Your task to perform on an android device: Open Wikipedia Image 0: 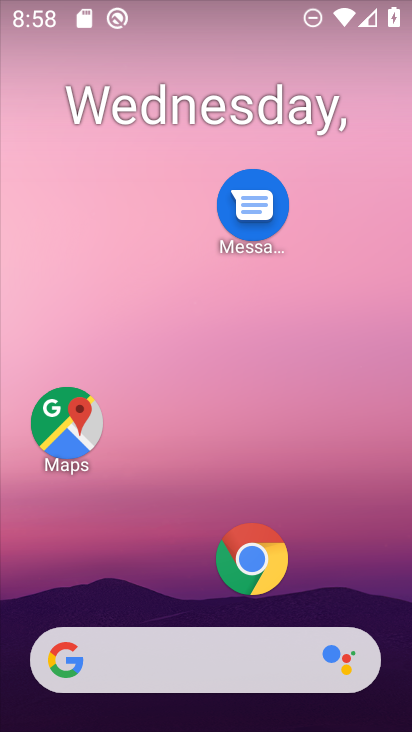
Step 0: drag from (151, 563) to (151, 41)
Your task to perform on an android device: Open Wikipedia Image 1: 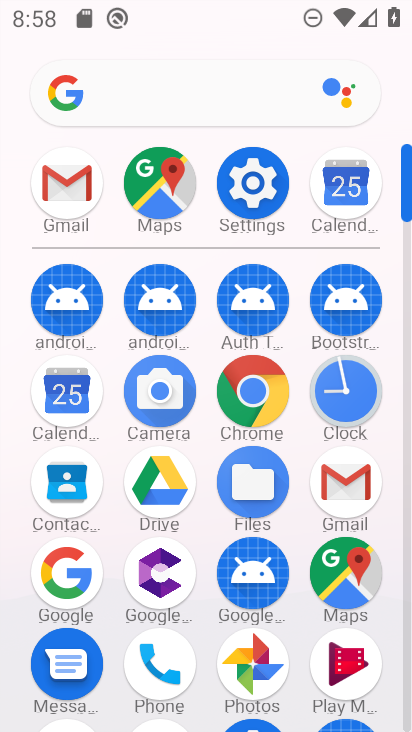
Step 1: click (265, 393)
Your task to perform on an android device: Open Wikipedia Image 2: 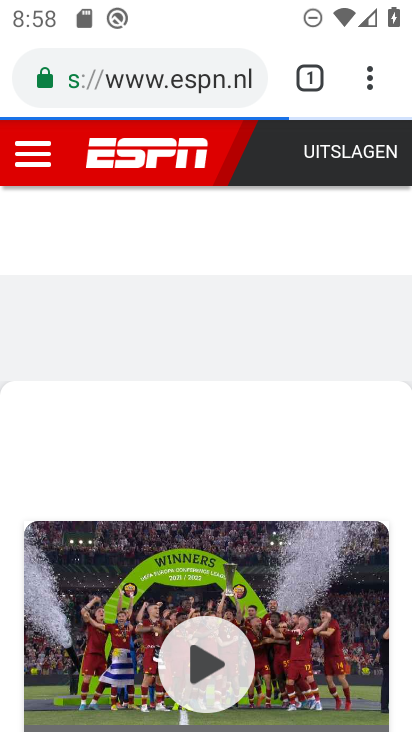
Step 2: click (198, 83)
Your task to perform on an android device: Open Wikipedia Image 3: 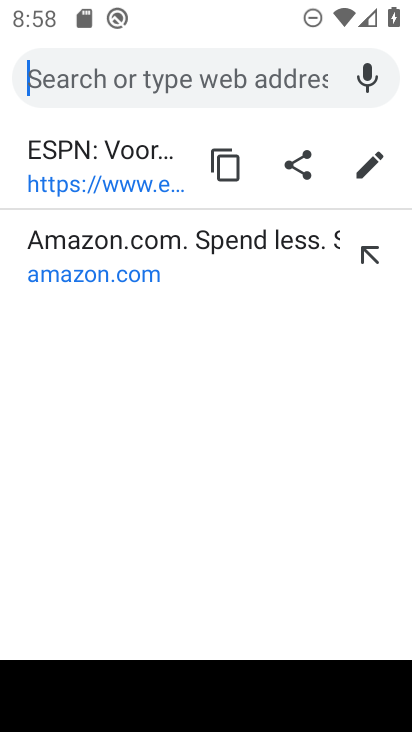
Step 3: type "wikipedia"
Your task to perform on an android device: Open Wikipedia Image 4: 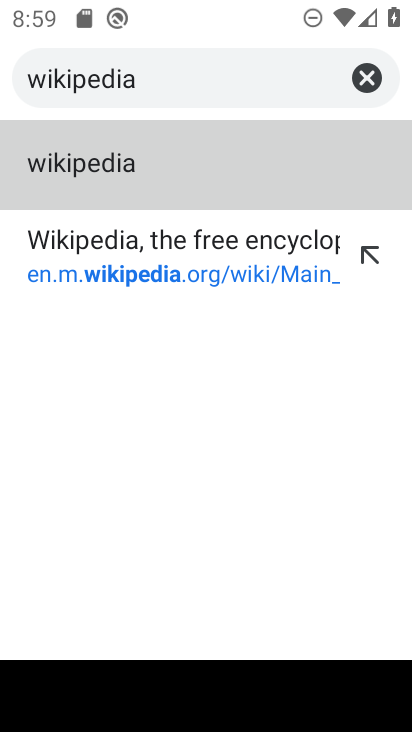
Step 4: click (237, 250)
Your task to perform on an android device: Open Wikipedia Image 5: 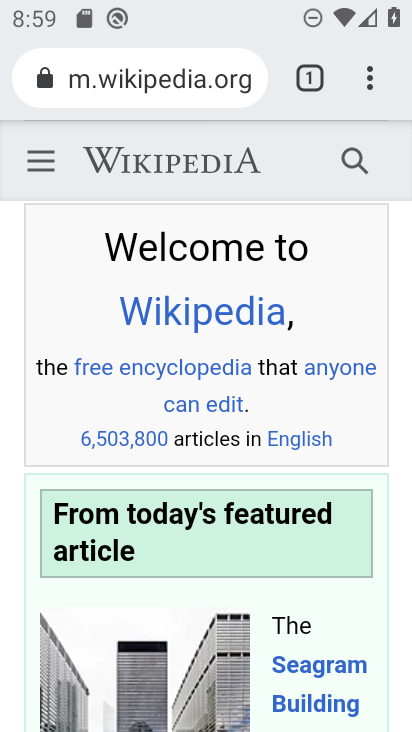
Step 5: task complete